Your task to perform on an android device: Open the calendar app, open the side menu, and click the "Day" option Image 0: 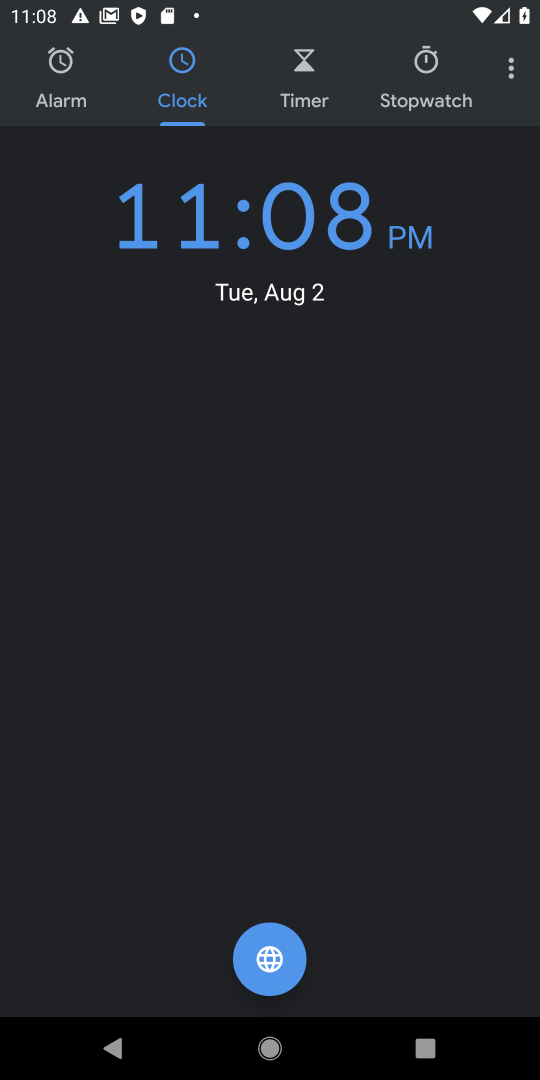
Step 0: press home button
Your task to perform on an android device: Open the calendar app, open the side menu, and click the "Day" option Image 1: 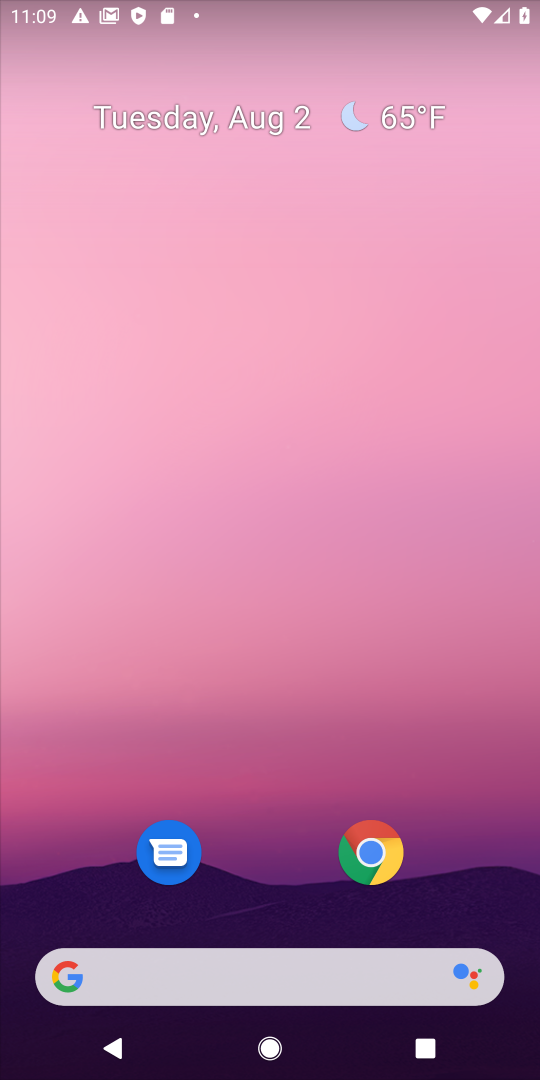
Step 1: drag from (102, 874) to (289, 15)
Your task to perform on an android device: Open the calendar app, open the side menu, and click the "Day" option Image 2: 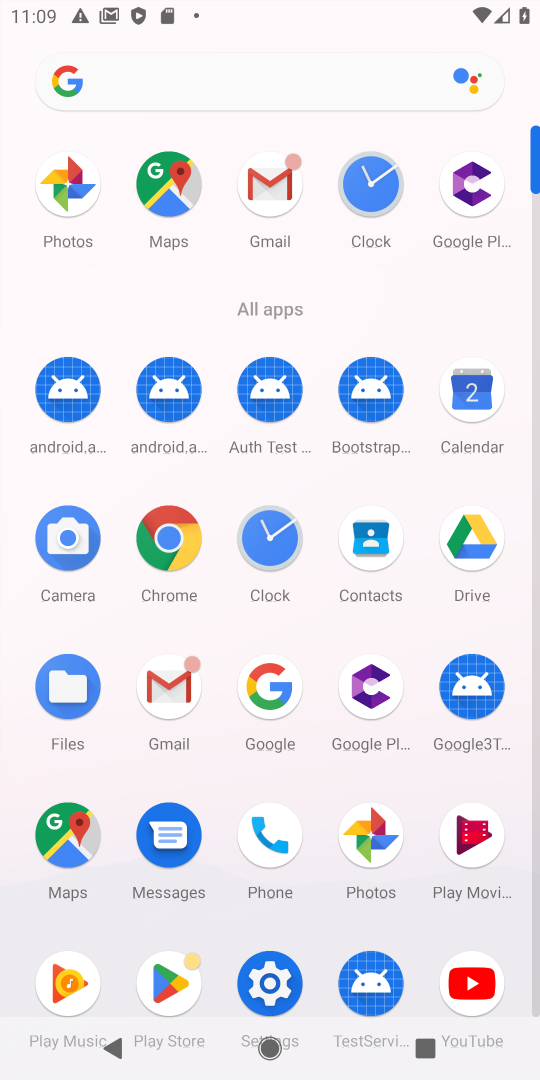
Step 2: click (451, 410)
Your task to perform on an android device: Open the calendar app, open the side menu, and click the "Day" option Image 3: 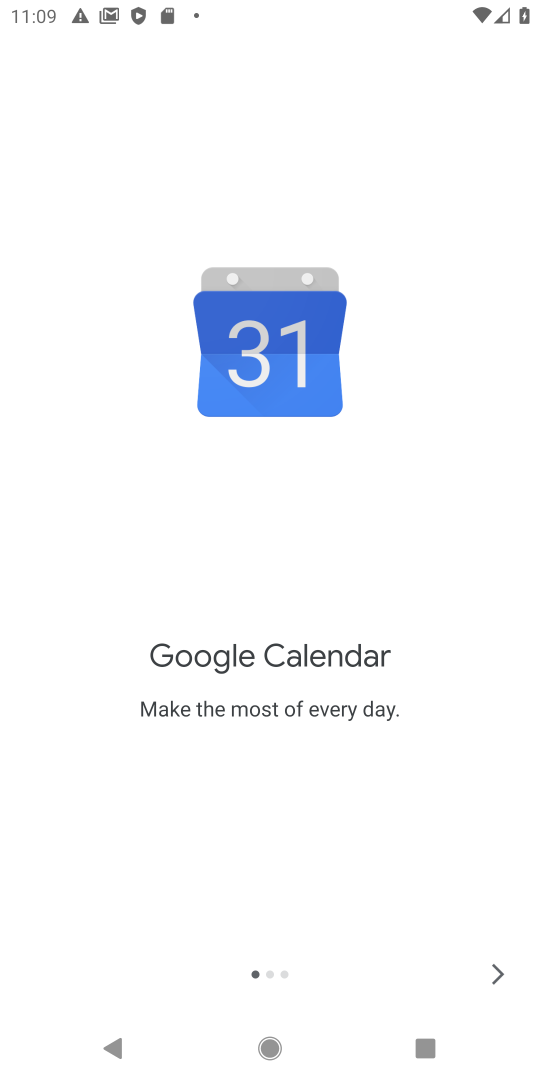
Step 3: click (501, 978)
Your task to perform on an android device: Open the calendar app, open the side menu, and click the "Day" option Image 4: 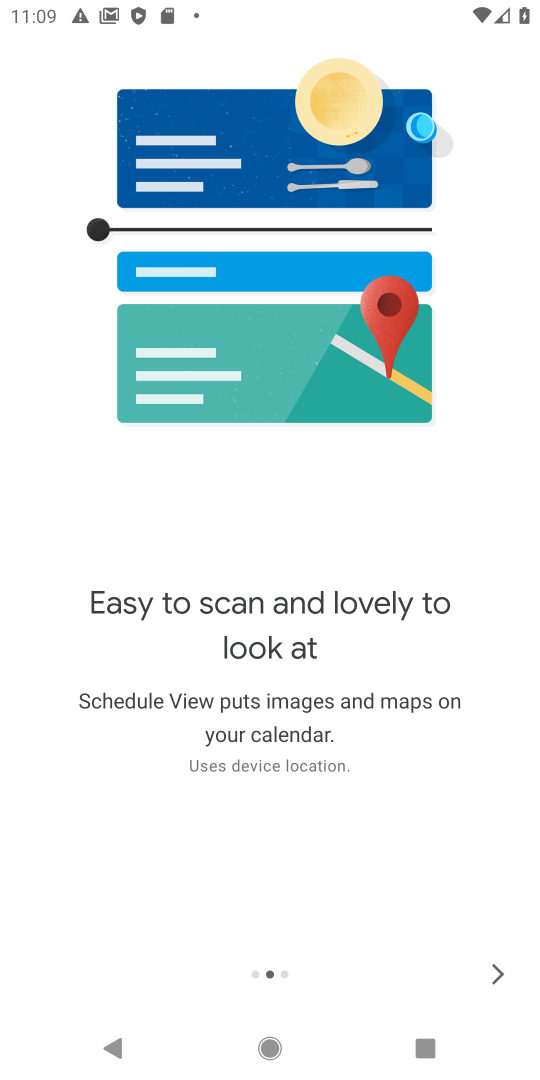
Step 4: click (488, 971)
Your task to perform on an android device: Open the calendar app, open the side menu, and click the "Day" option Image 5: 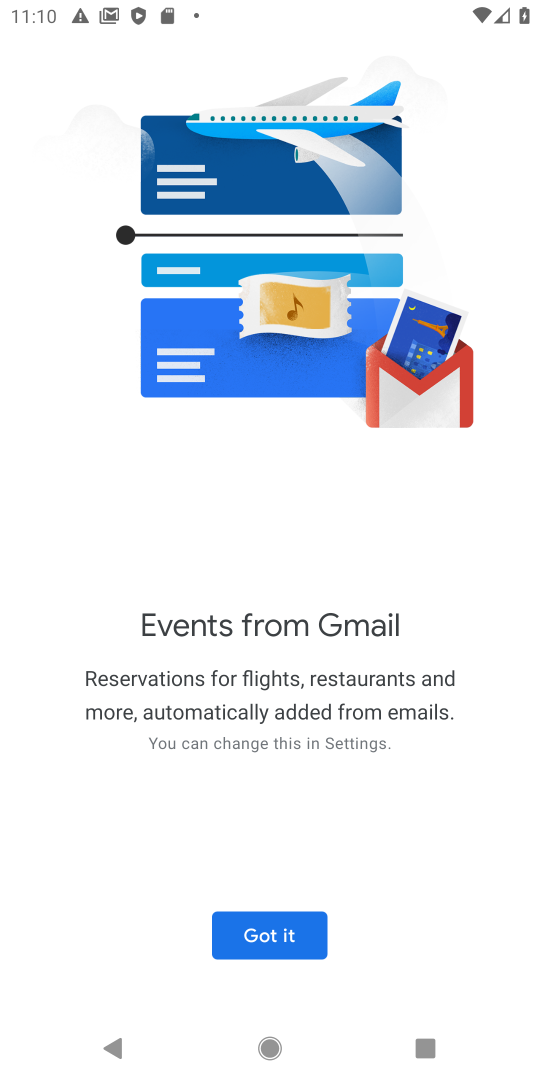
Step 5: click (259, 925)
Your task to perform on an android device: Open the calendar app, open the side menu, and click the "Day" option Image 6: 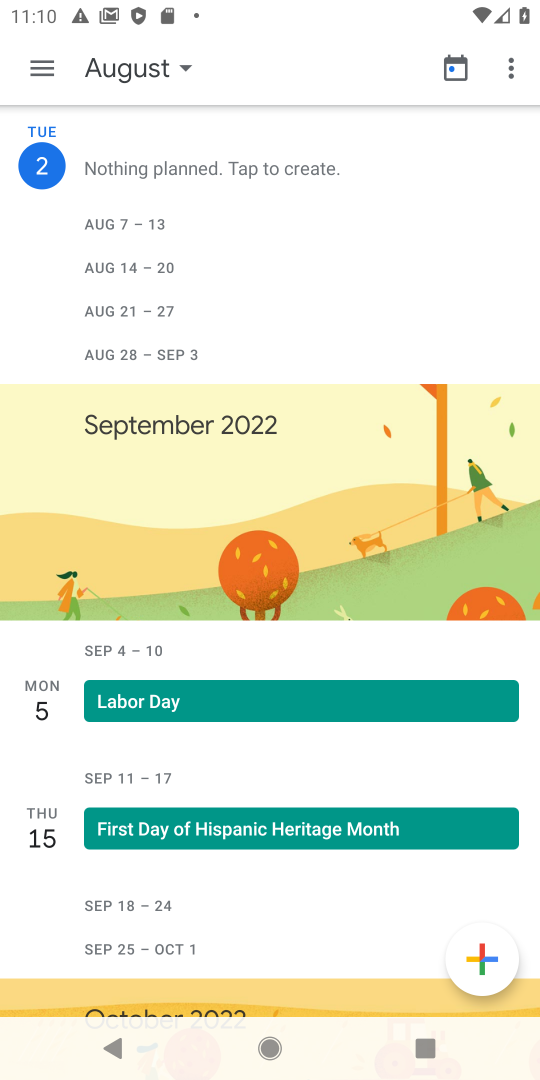
Step 6: click (160, 77)
Your task to perform on an android device: Open the calendar app, open the side menu, and click the "Day" option Image 7: 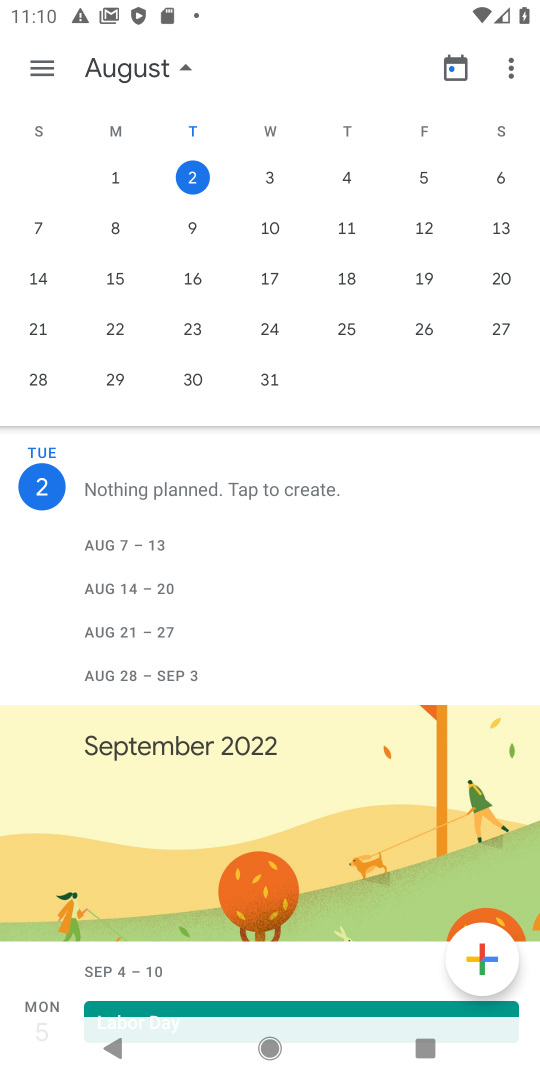
Step 7: click (45, 61)
Your task to perform on an android device: Open the calendar app, open the side menu, and click the "Day" option Image 8: 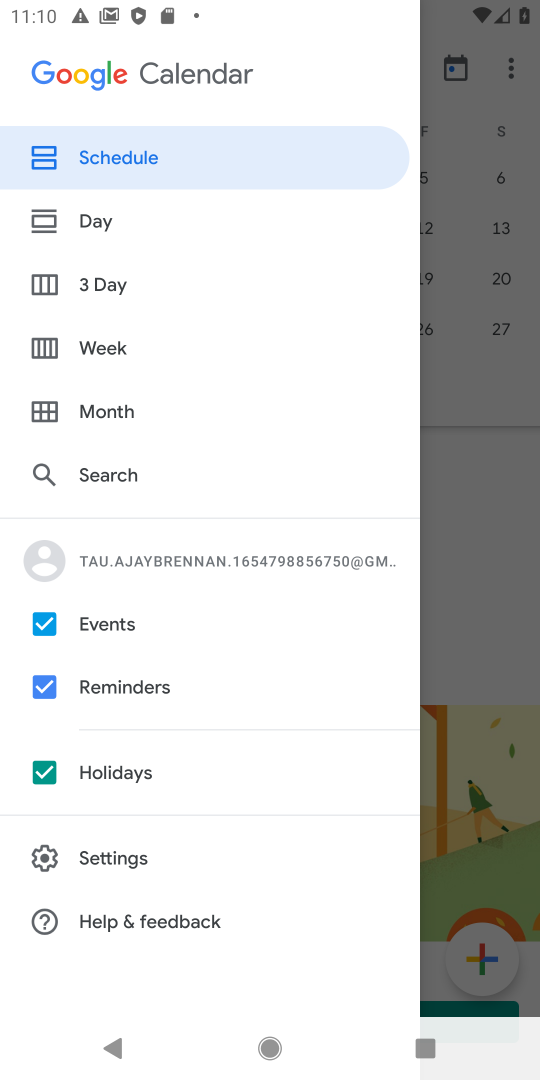
Step 8: click (100, 219)
Your task to perform on an android device: Open the calendar app, open the side menu, and click the "Day" option Image 9: 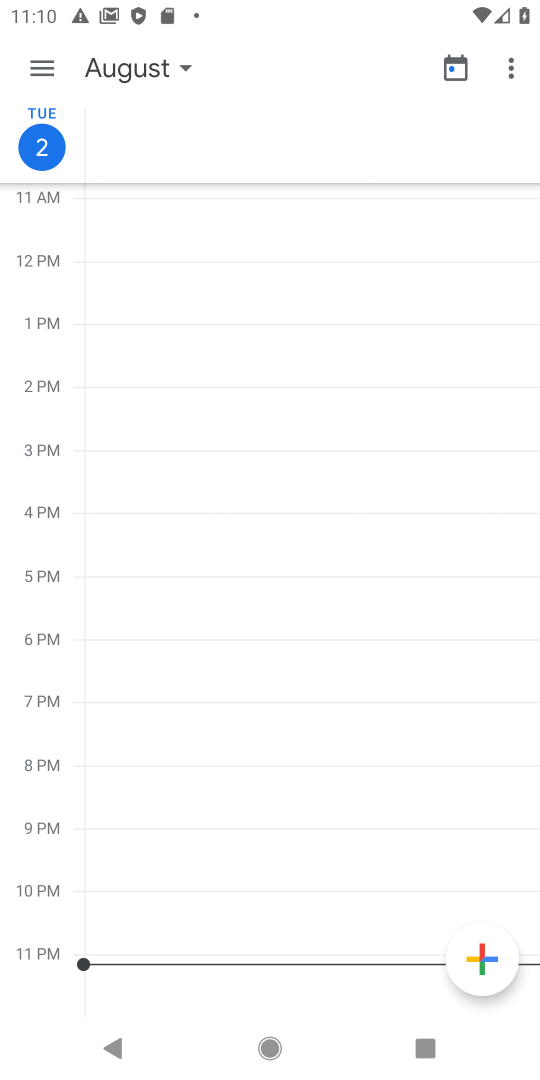
Step 9: task complete